Your task to perform on an android device: turn off smart reply in the gmail app Image 0: 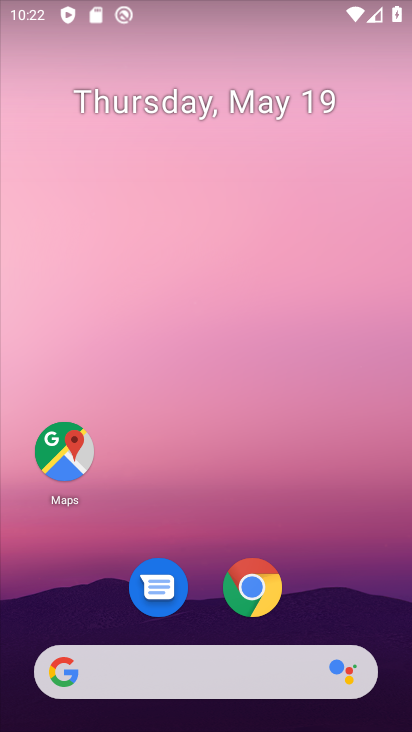
Step 0: drag from (373, 583) to (308, 166)
Your task to perform on an android device: turn off smart reply in the gmail app Image 1: 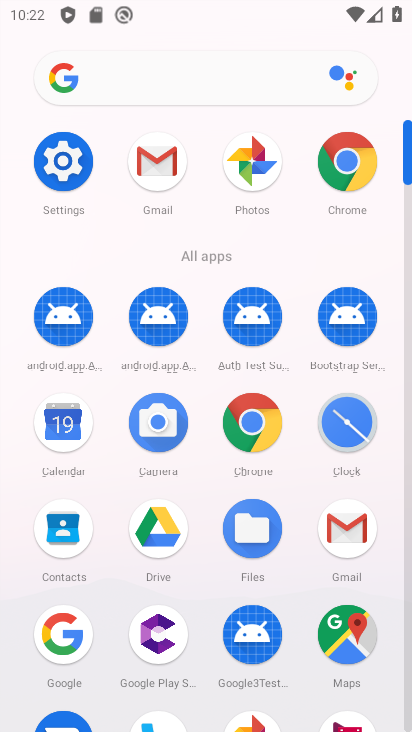
Step 1: click (348, 538)
Your task to perform on an android device: turn off smart reply in the gmail app Image 2: 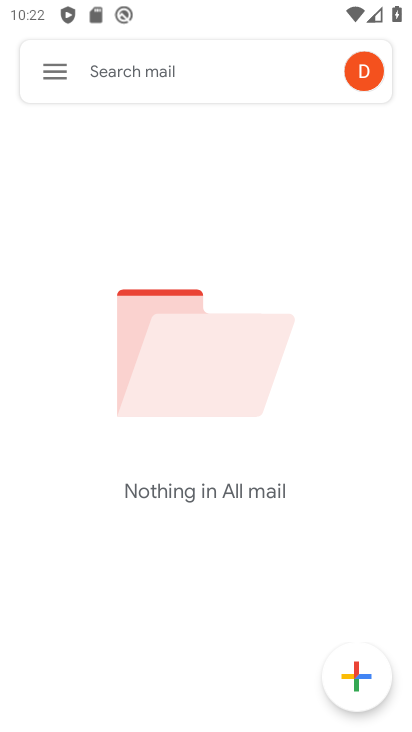
Step 2: click (52, 77)
Your task to perform on an android device: turn off smart reply in the gmail app Image 3: 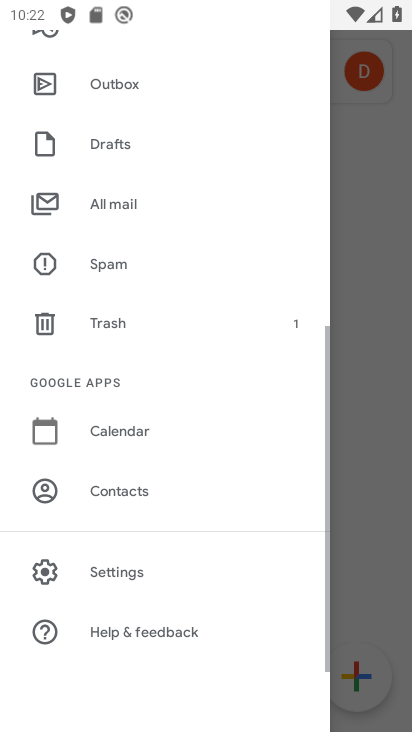
Step 3: drag from (245, 635) to (200, 309)
Your task to perform on an android device: turn off smart reply in the gmail app Image 4: 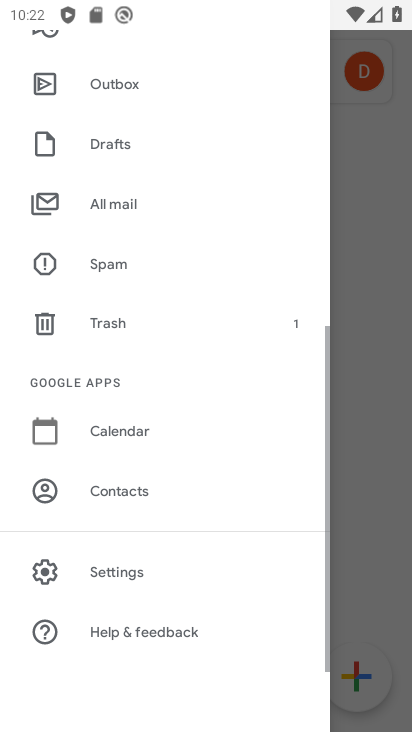
Step 4: click (155, 571)
Your task to perform on an android device: turn off smart reply in the gmail app Image 5: 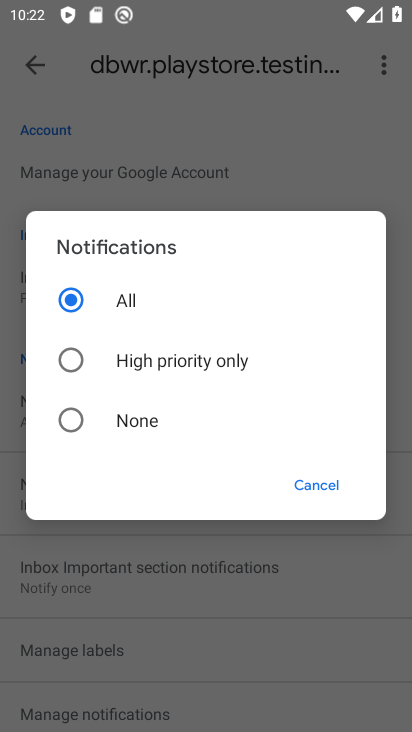
Step 5: click (318, 478)
Your task to perform on an android device: turn off smart reply in the gmail app Image 6: 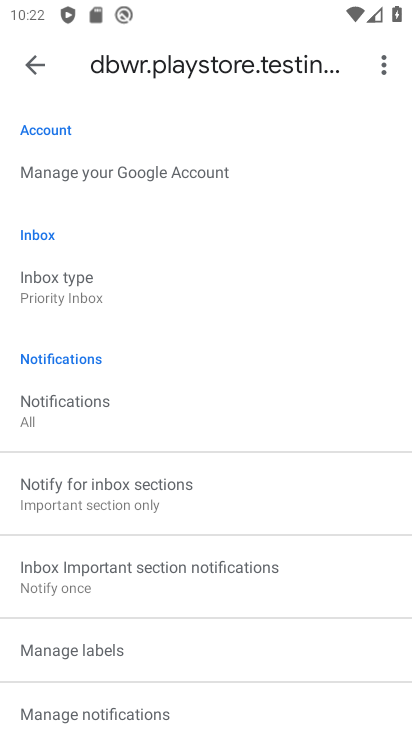
Step 6: drag from (208, 642) to (279, 128)
Your task to perform on an android device: turn off smart reply in the gmail app Image 7: 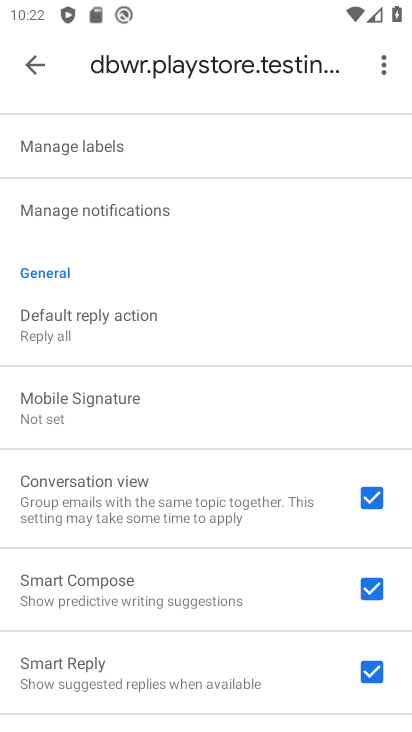
Step 7: drag from (242, 618) to (296, 253)
Your task to perform on an android device: turn off smart reply in the gmail app Image 8: 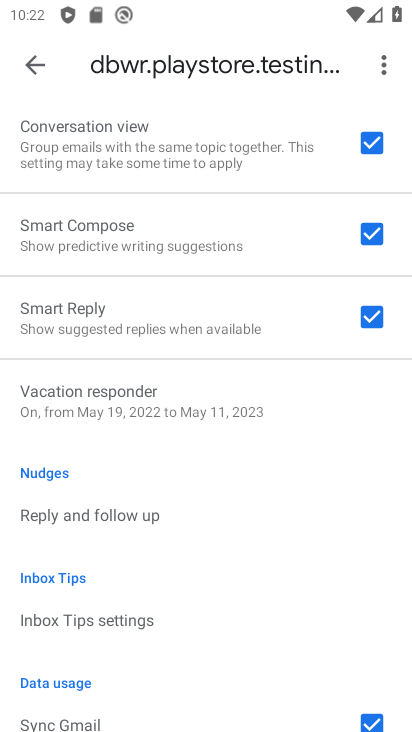
Step 8: click (368, 327)
Your task to perform on an android device: turn off smart reply in the gmail app Image 9: 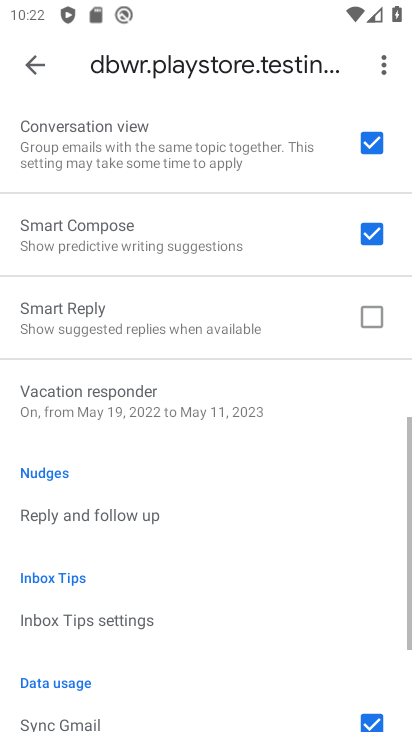
Step 9: task complete